Your task to perform on an android device: turn off notifications settings in the gmail app Image 0: 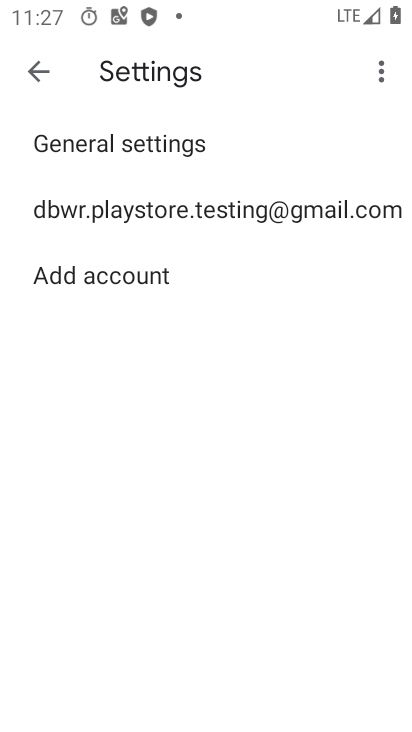
Step 0: press home button
Your task to perform on an android device: turn off notifications settings in the gmail app Image 1: 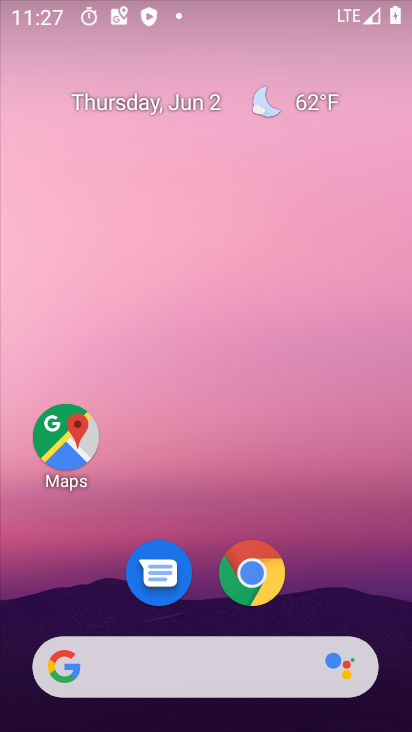
Step 1: drag from (275, 698) to (332, 38)
Your task to perform on an android device: turn off notifications settings in the gmail app Image 2: 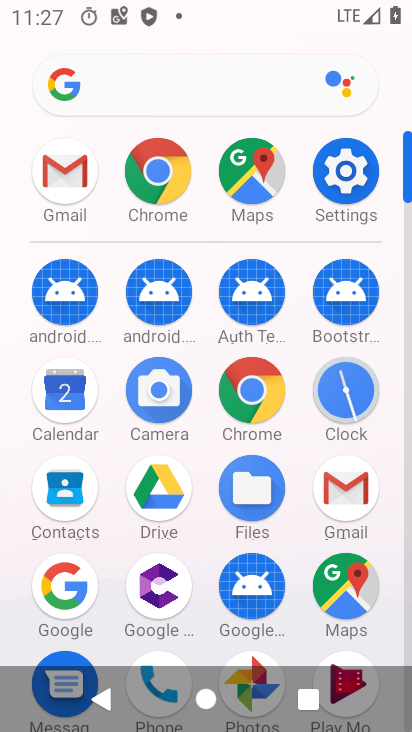
Step 2: click (354, 490)
Your task to perform on an android device: turn off notifications settings in the gmail app Image 3: 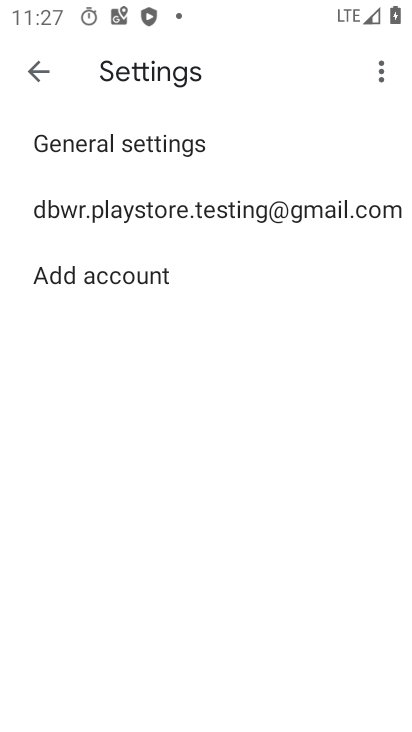
Step 3: click (194, 192)
Your task to perform on an android device: turn off notifications settings in the gmail app Image 4: 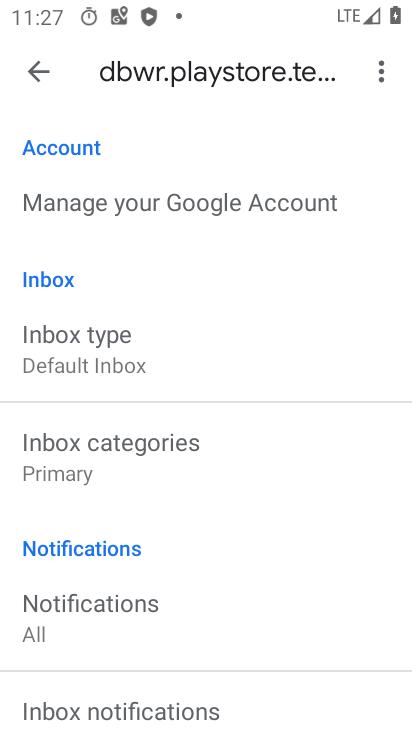
Step 4: drag from (152, 599) to (193, 8)
Your task to perform on an android device: turn off notifications settings in the gmail app Image 5: 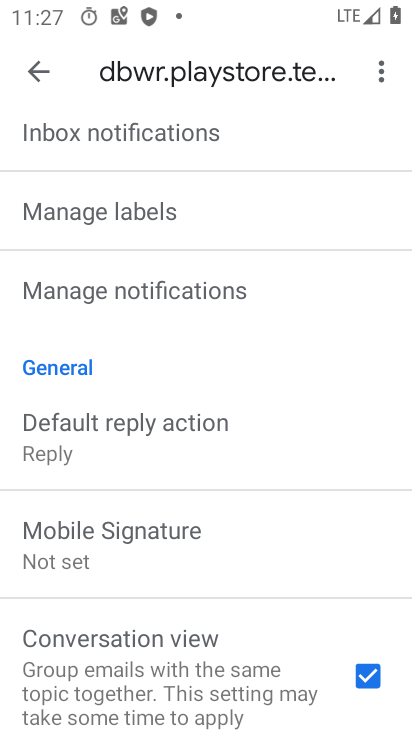
Step 5: click (175, 290)
Your task to perform on an android device: turn off notifications settings in the gmail app Image 6: 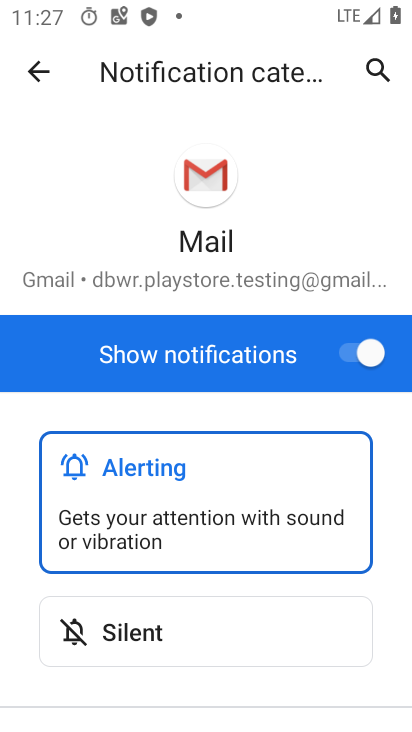
Step 6: click (360, 356)
Your task to perform on an android device: turn off notifications settings in the gmail app Image 7: 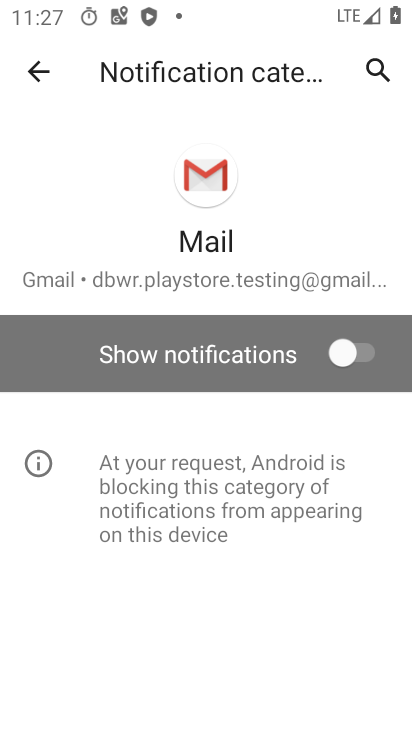
Step 7: task complete